Your task to perform on an android device: Open Chrome and go to settings Image 0: 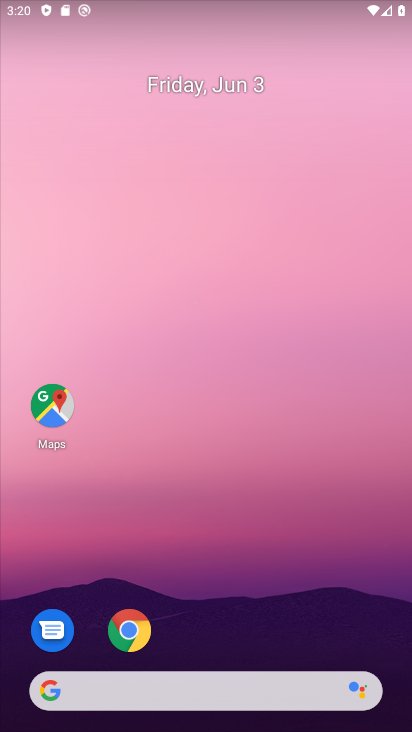
Step 0: drag from (269, 702) to (143, 86)
Your task to perform on an android device: Open Chrome and go to settings Image 1: 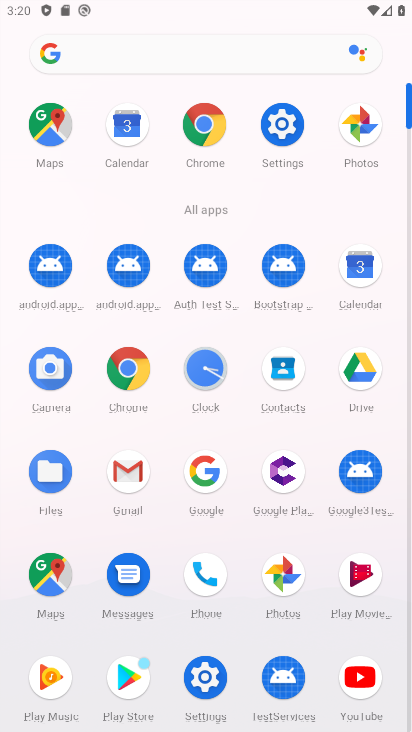
Step 1: click (275, 117)
Your task to perform on an android device: Open Chrome and go to settings Image 2: 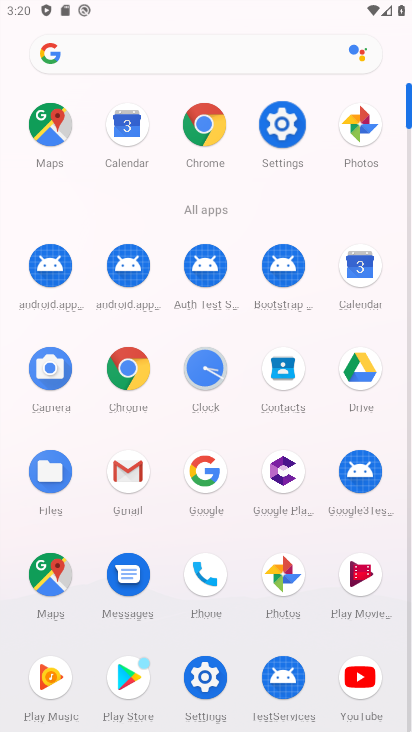
Step 2: click (274, 116)
Your task to perform on an android device: Open Chrome and go to settings Image 3: 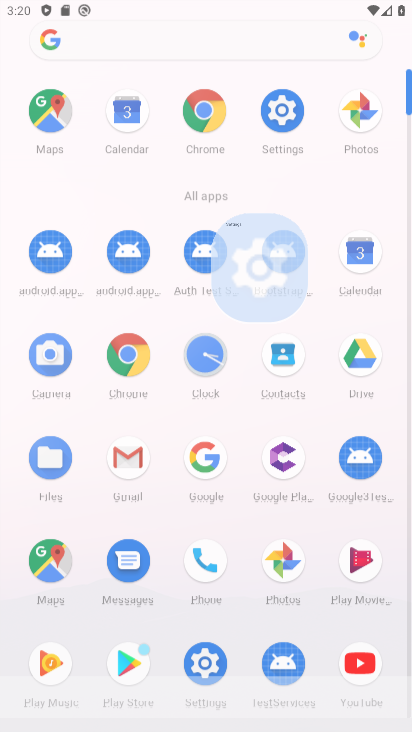
Step 3: click (274, 116)
Your task to perform on an android device: Open Chrome and go to settings Image 4: 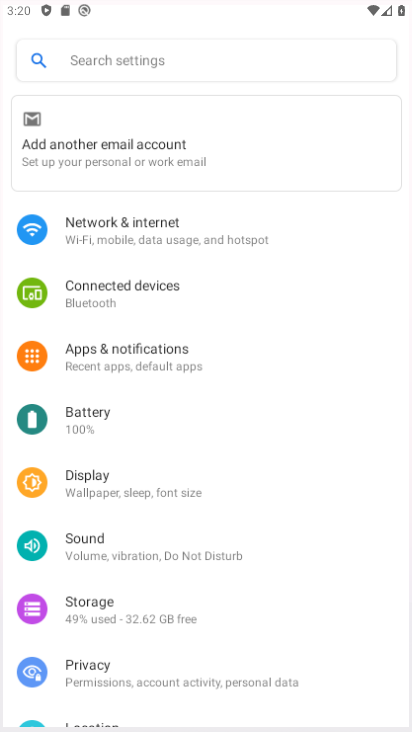
Step 4: click (274, 116)
Your task to perform on an android device: Open Chrome and go to settings Image 5: 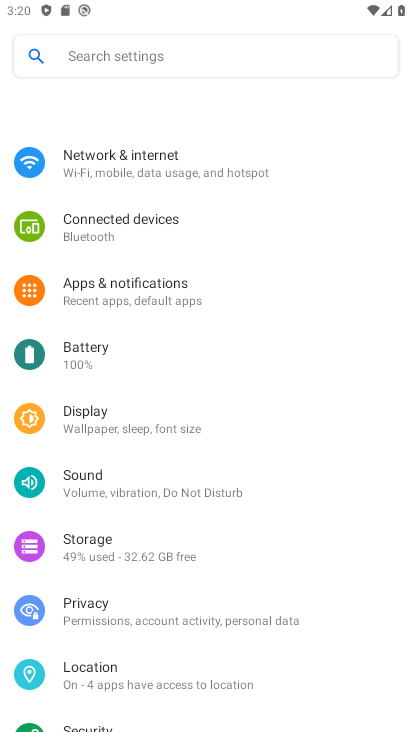
Step 5: click (274, 116)
Your task to perform on an android device: Open Chrome and go to settings Image 6: 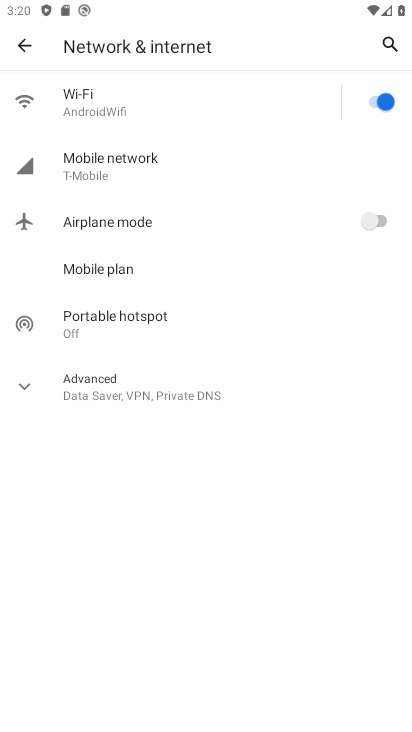
Step 6: click (19, 41)
Your task to perform on an android device: Open Chrome and go to settings Image 7: 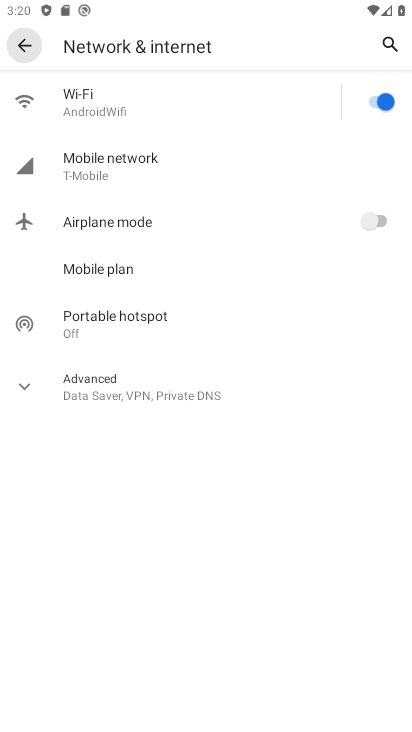
Step 7: click (19, 41)
Your task to perform on an android device: Open Chrome and go to settings Image 8: 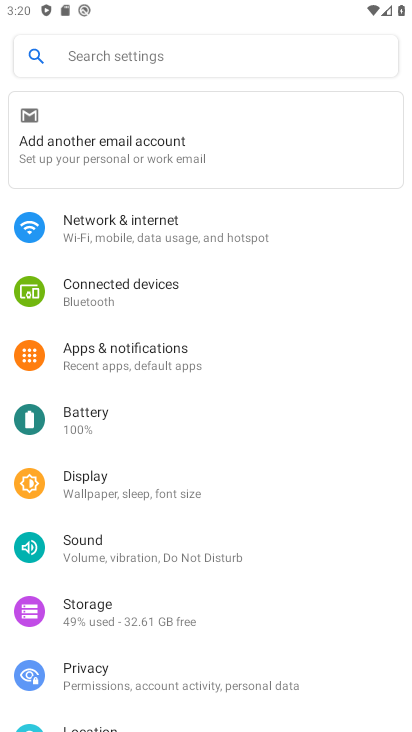
Step 8: press home button
Your task to perform on an android device: Open Chrome and go to settings Image 9: 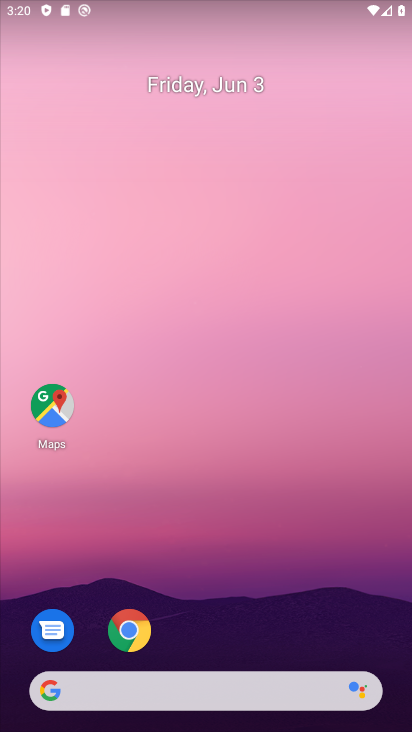
Step 9: drag from (292, 721) to (189, 122)
Your task to perform on an android device: Open Chrome and go to settings Image 10: 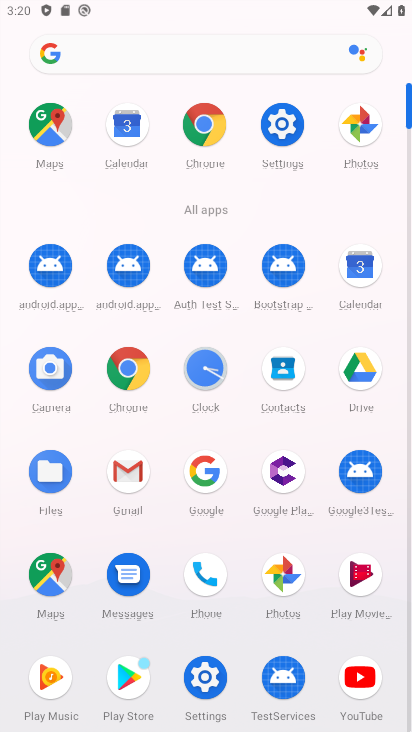
Step 10: click (285, 127)
Your task to perform on an android device: Open Chrome and go to settings Image 11: 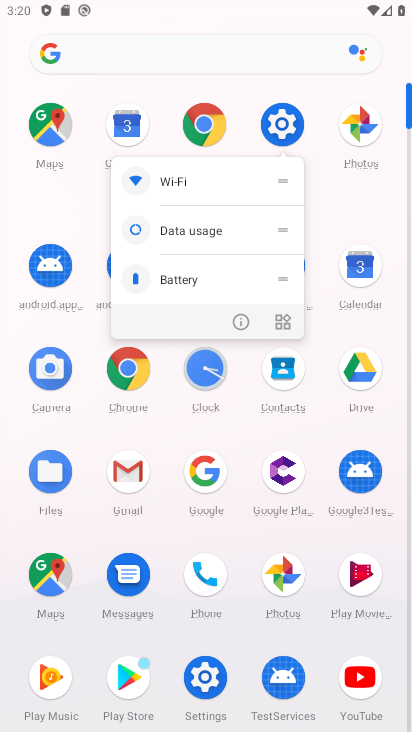
Step 11: click (279, 135)
Your task to perform on an android device: Open Chrome and go to settings Image 12: 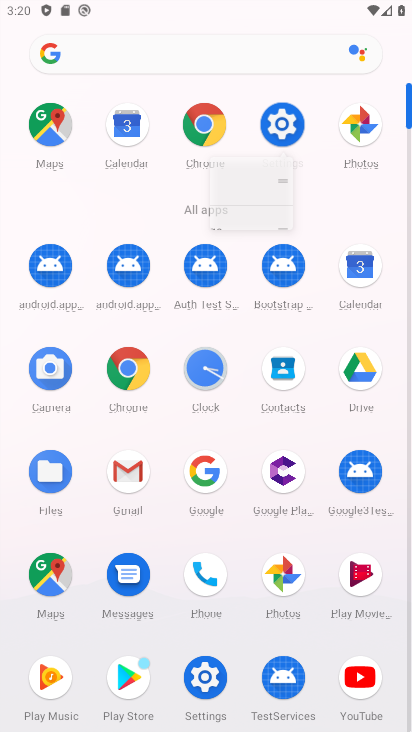
Step 12: click (279, 135)
Your task to perform on an android device: Open Chrome and go to settings Image 13: 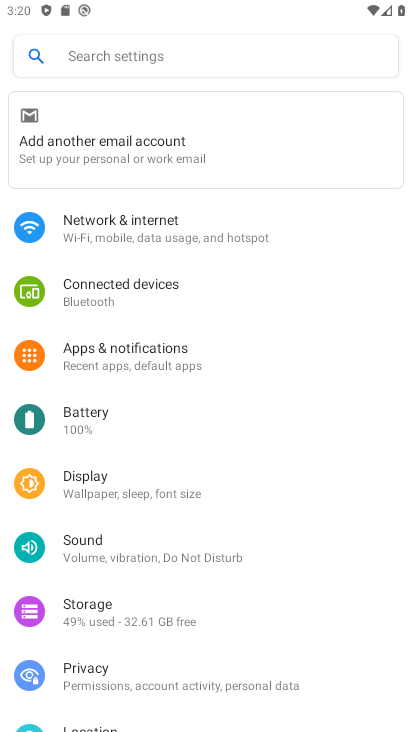
Step 13: press back button
Your task to perform on an android device: Open Chrome and go to settings Image 14: 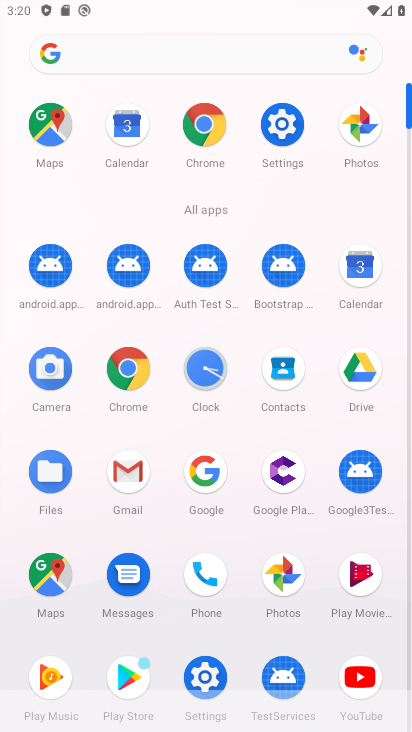
Step 14: click (131, 376)
Your task to perform on an android device: Open Chrome and go to settings Image 15: 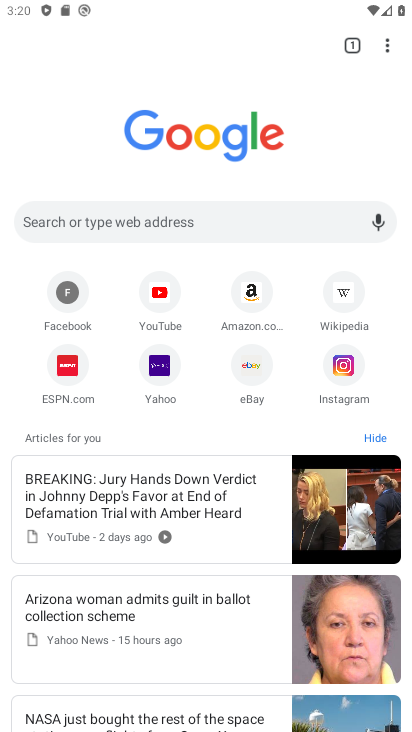
Step 15: drag from (389, 50) to (215, 380)
Your task to perform on an android device: Open Chrome and go to settings Image 16: 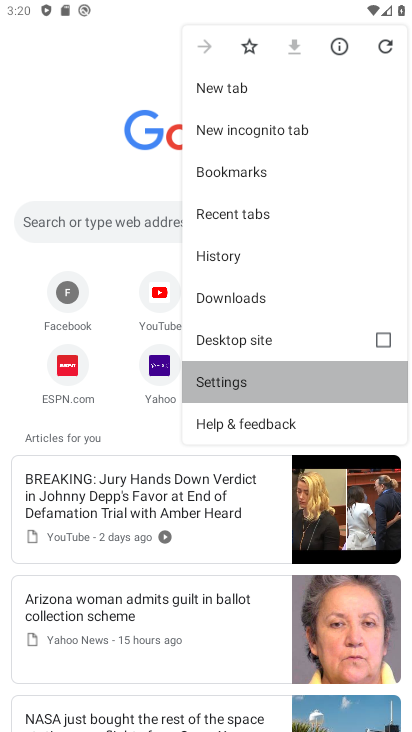
Step 16: click (215, 381)
Your task to perform on an android device: Open Chrome and go to settings Image 17: 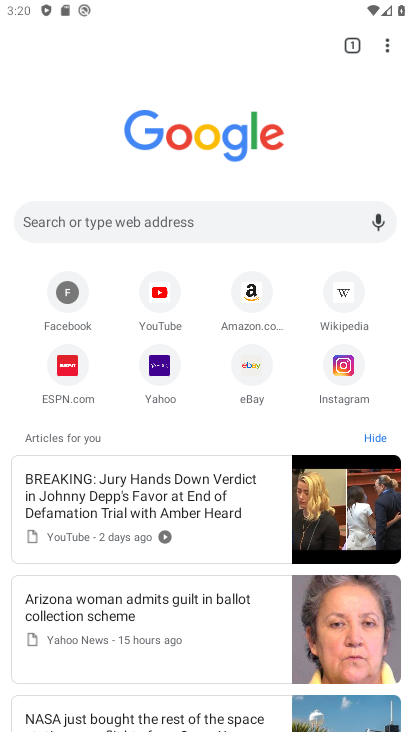
Step 17: click (211, 385)
Your task to perform on an android device: Open Chrome and go to settings Image 18: 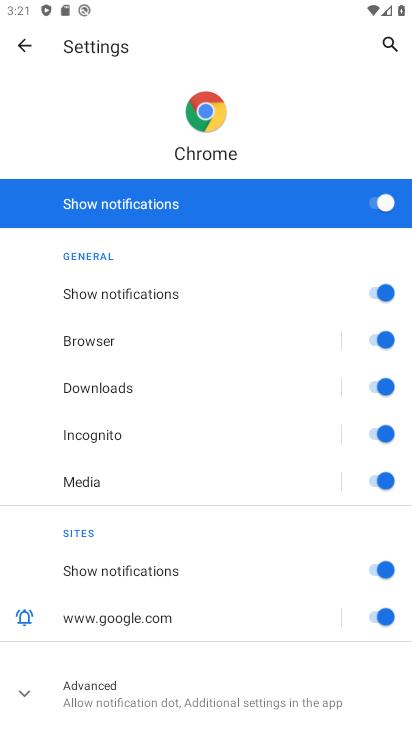
Step 18: drag from (144, 408) to (129, 166)
Your task to perform on an android device: Open Chrome and go to settings Image 19: 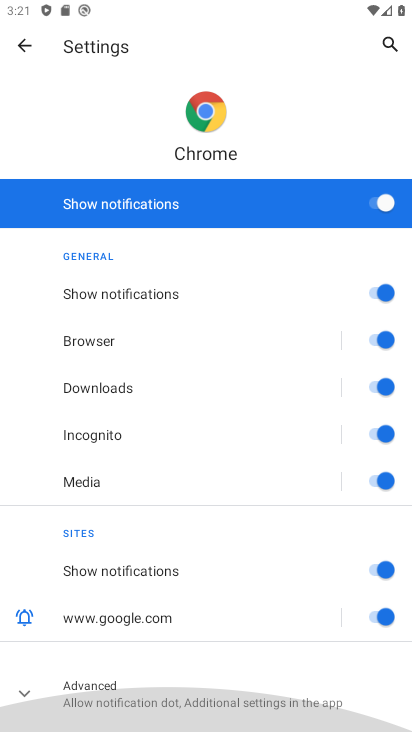
Step 19: drag from (225, 382) to (176, 9)
Your task to perform on an android device: Open Chrome and go to settings Image 20: 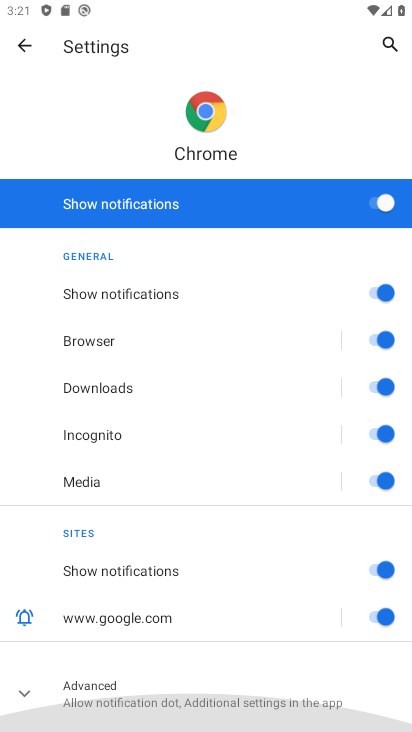
Step 20: drag from (232, 385) to (177, 144)
Your task to perform on an android device: Open Chrome and go to settings Image 21: 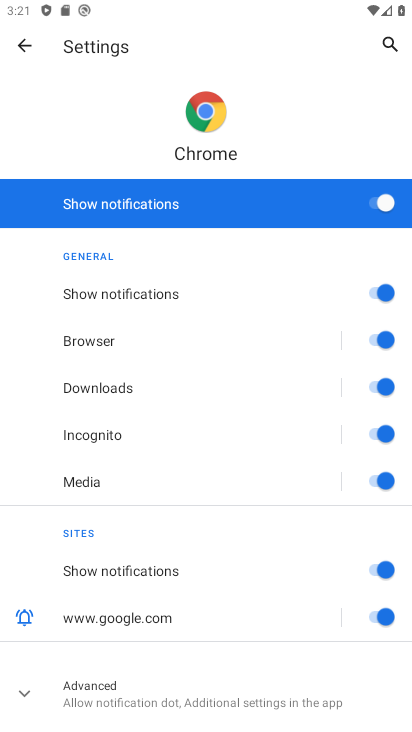
Step 21: click (20, 42)
Your task to perform on an android device: Open Chrome and go to settings Image 22: 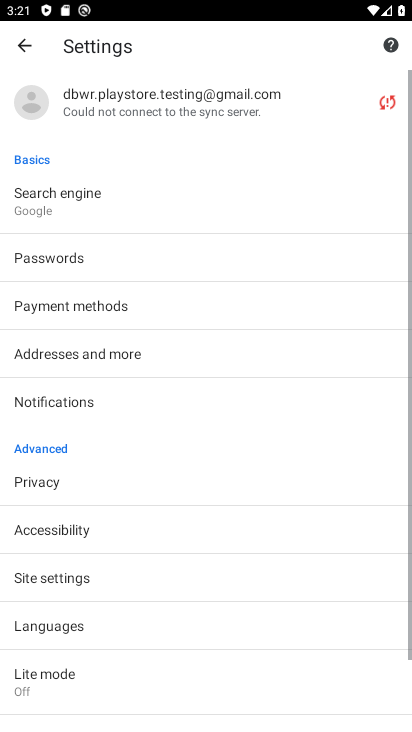
Step 22: task complete